Your task to perform on an android device: turn on data saver in the chrome app Image 0: 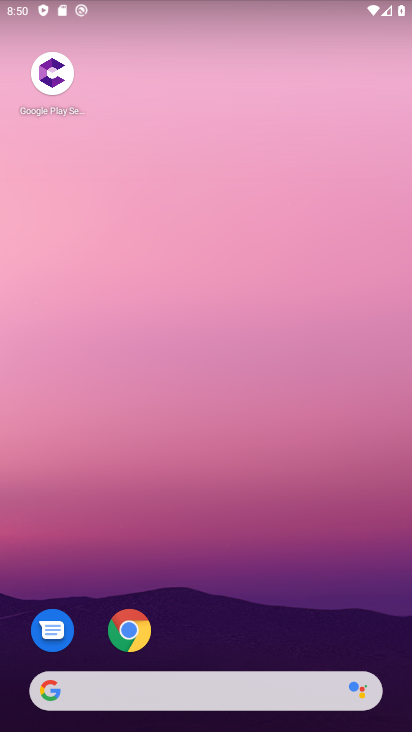
Step 0: click (142, 622)
Your task to perform on an android device: turn on data saver in the chrome app Image 1: 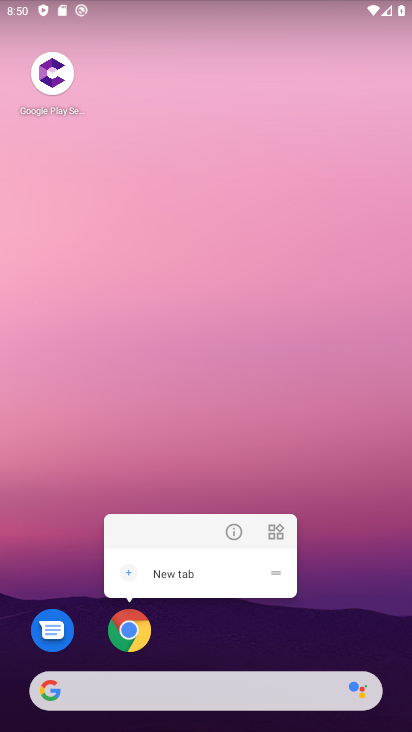
Step 1: click (141, 623)
Your task to perform on an android device: turn on data saver in the chrome app Image 2: 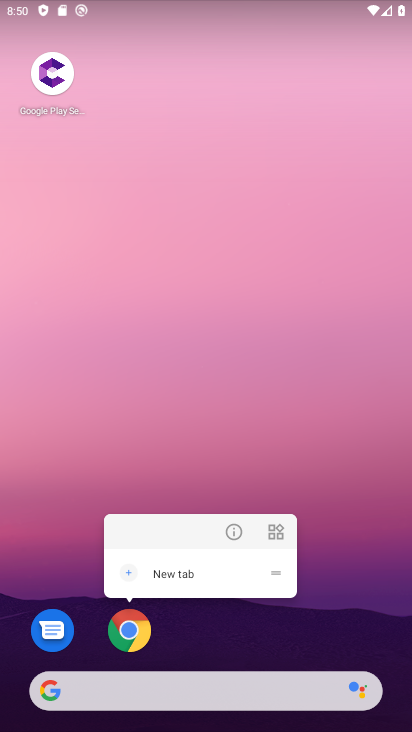
Step 2: click (119, 641)
Your task to perform on an android device: turn on data saver in the chrome app Image 3: 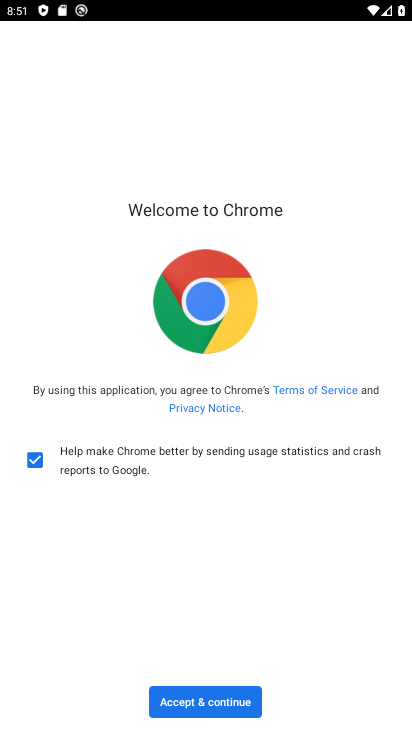
Step 3: click (201, 703)
Your task to perform on an android device: turn on data saver in the chrome app Image 4: 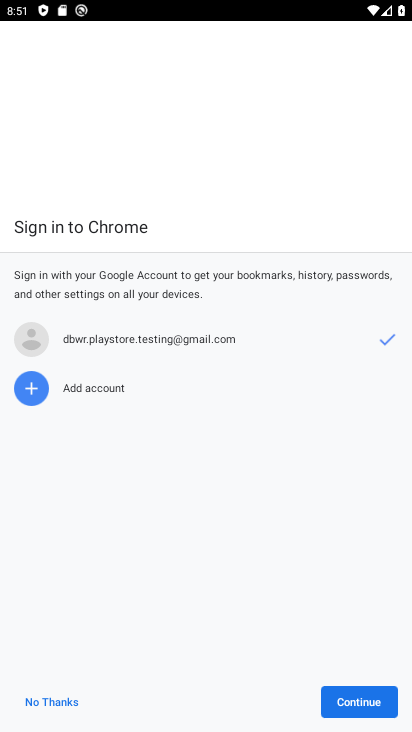
Step 4: click (360, 716)
Your task to perform on an android device: turn on data saver in the chrome app Image 5: 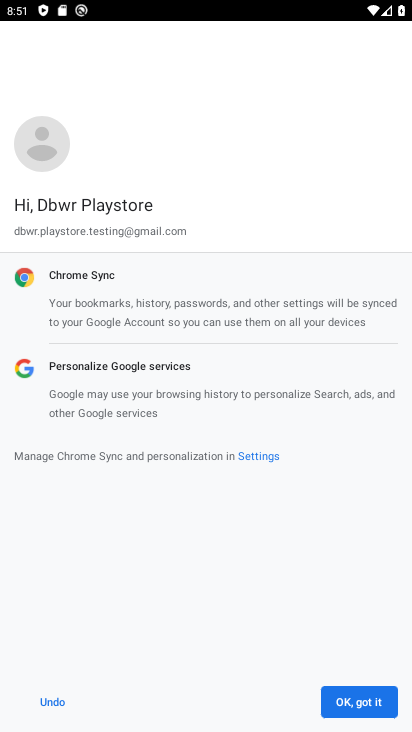
Step 5: click (359, 706)
Your task to perform on an android device: turn on data saver in the chrome app Image 6: 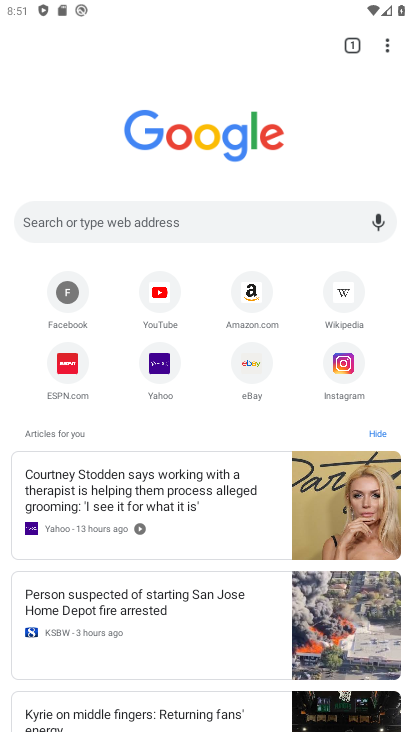
Step 6: click (387, 49)
Your task to perform on an android device: turn on data saver in the chrome app Image 7: 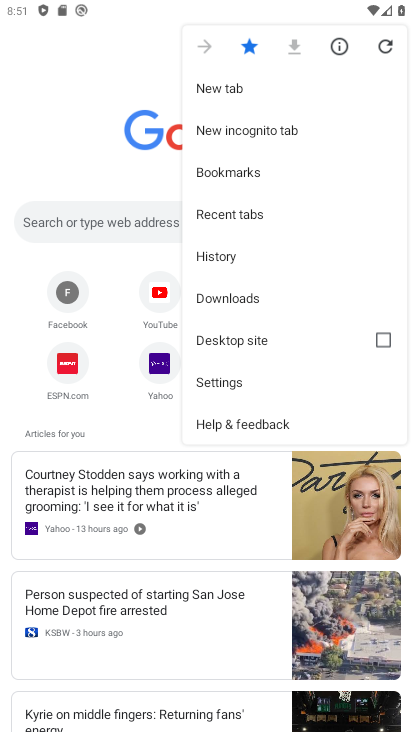
Step 7: click (276, 391)
Your task to perform on an android device: turn on data saver in the chrome app Image 8: 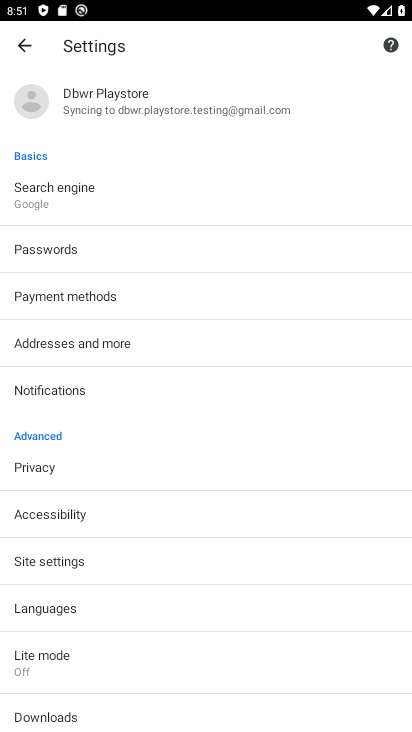
Step 8: click (202, 660)
Your task to perform on an android device: turn on data saver in the chrome app Image 9: 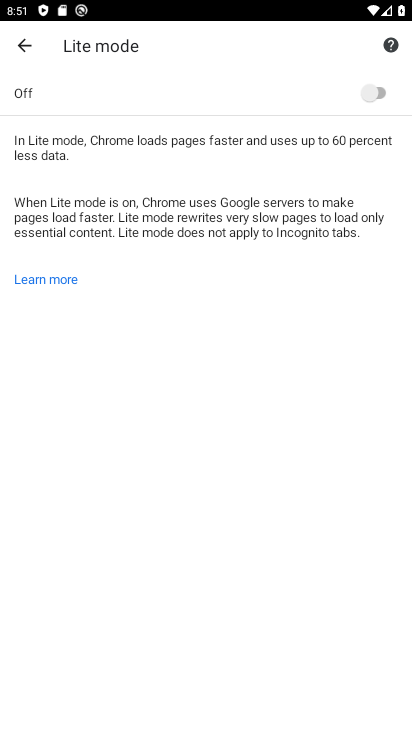
Step 9: click (383, 88)
Your task to perform on an android device: turn on data saver in the chrome app Image 10: 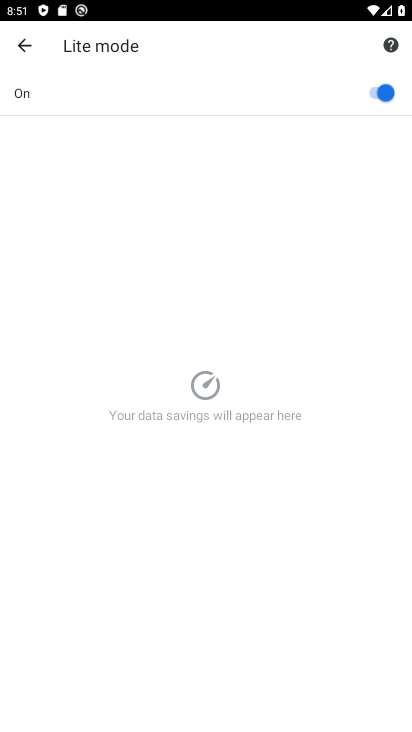
Step 10: task complete